Your task to perform on an android device: Open the map Image 0: 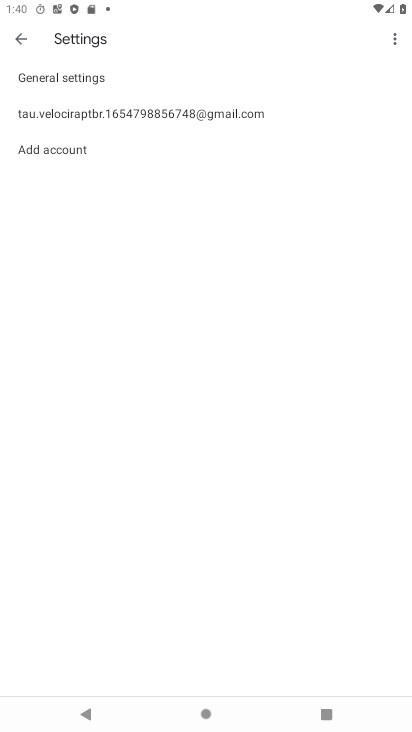
Step 0: press home button
Your task to perform on an android device: Open the map Image 1: 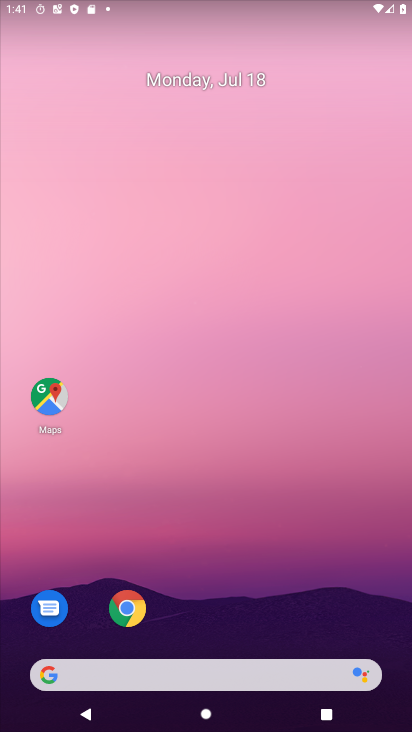
Step 1: drag from (203, 135) to (196, 22)
Your task to perform on an android device: Open the map Image 2: 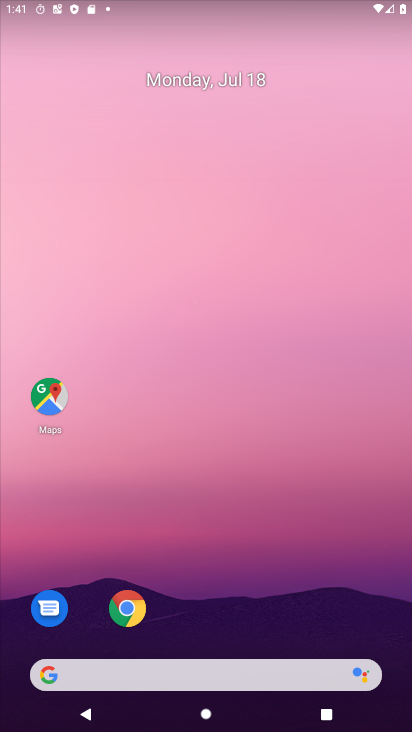
Step 2: drag from (247, 586) to (245, 47)
Your task to perform on an android device: Open the map Image 3: 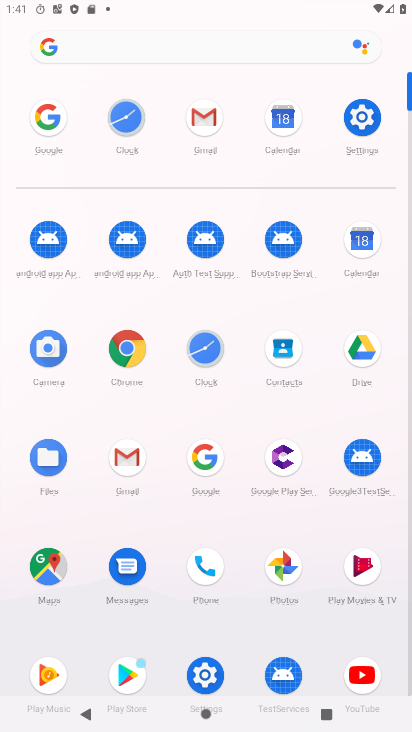
Step 3: click (46, 562)
Your task to perform on an android device: Open the map Image 4: 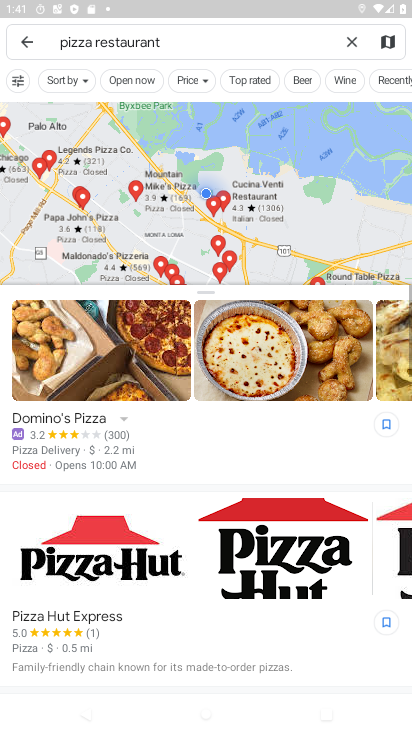
Step 4: task complete